Your task to perform on an android device: open app "Truecaller" (install if not already installed) Image 0: 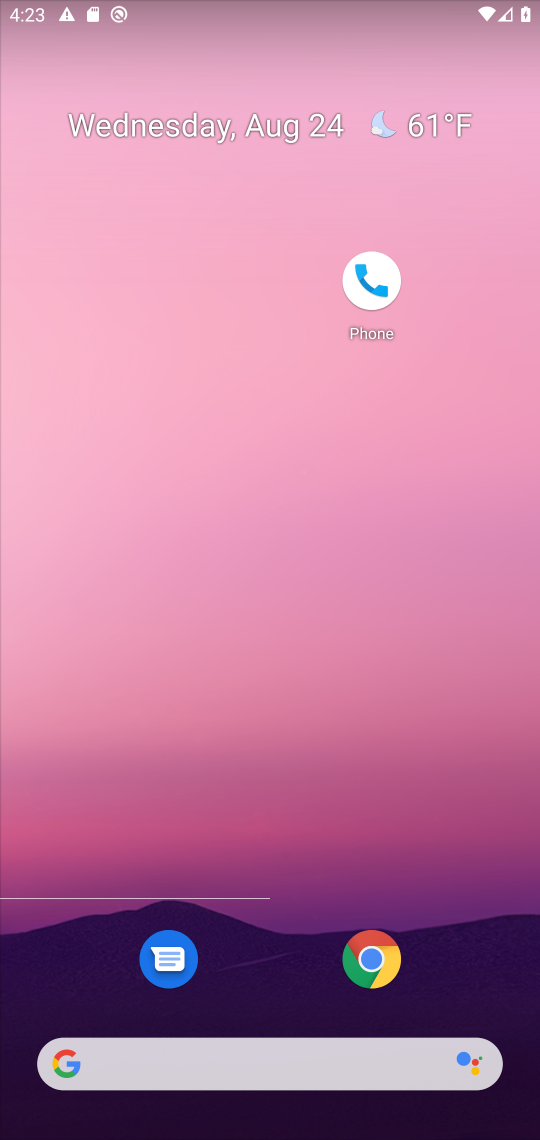
Step 0: drag from (278, 1009) to (311, 5)
Your task to perform on an android device: open app "Truecaller" (install if not already installed) Image 1: 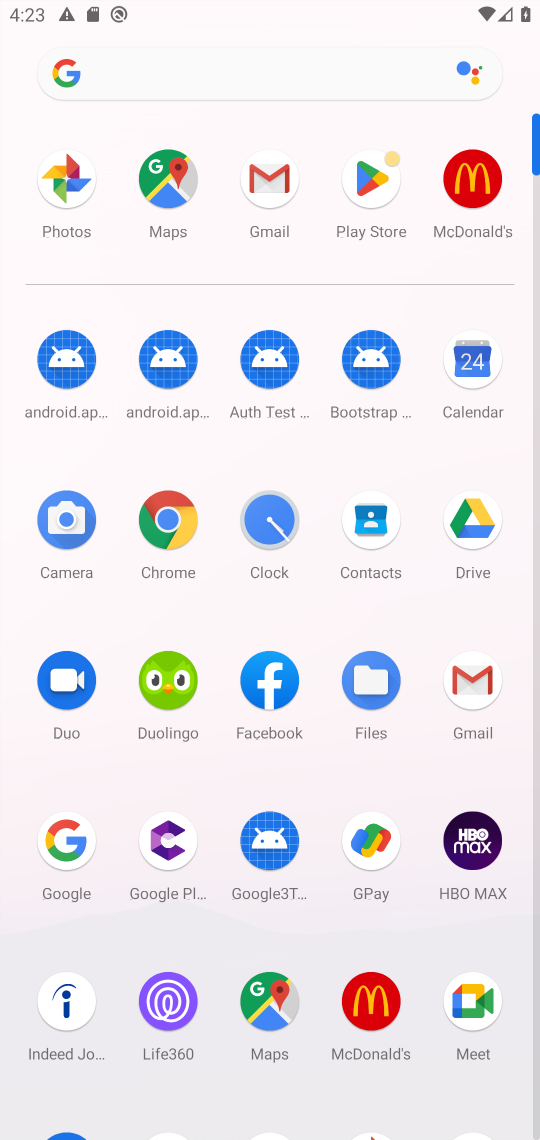
Step 1: click (381, 160)
Your task to perform on an android device: open app "Truecaller" (install if not already installed) Image 2: 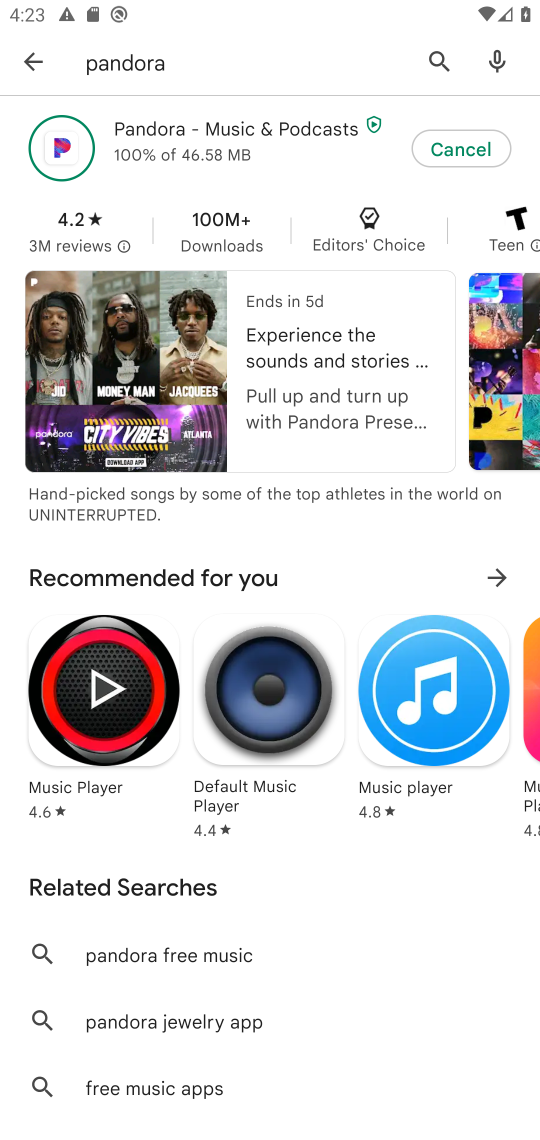
Step 2: click (429, 57)
Your task to perform on an android device: open app "Truecaller" (install if not already installed) Image 3: 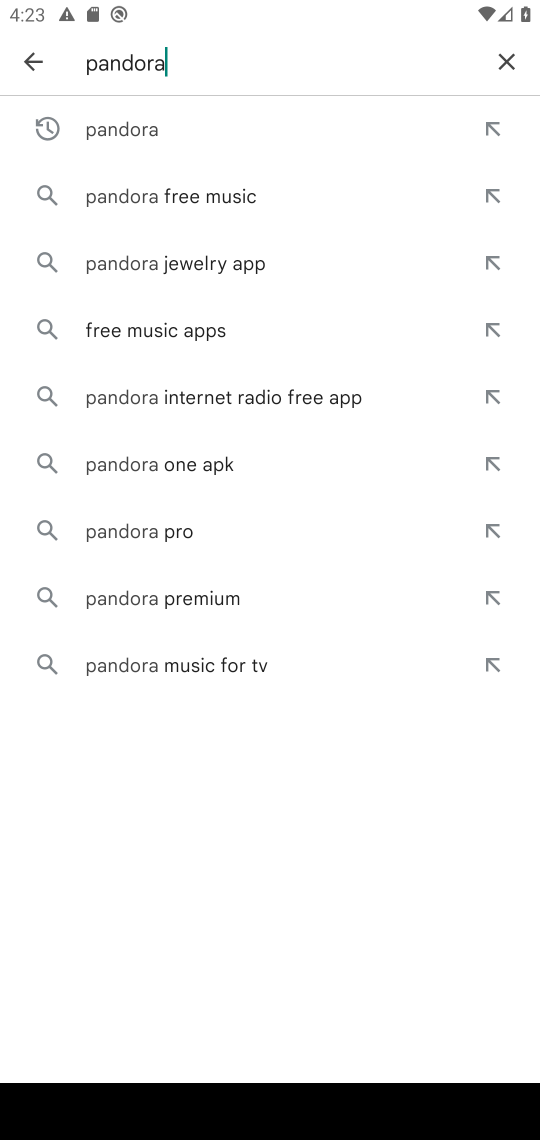
Step 3: click (517, 63)
Your task to perform on an android device: open app "Truecaller" (install if not already installed) Image 4: 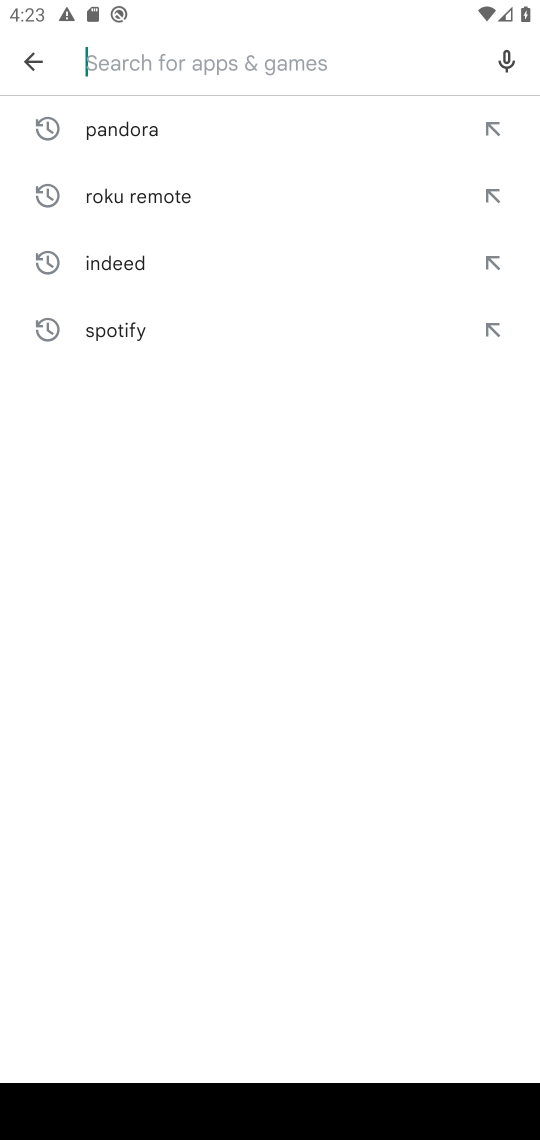
Step 4: type "turecaller"
Your task to perform on an android device: open app "Truecaller" (install if not already installed) Image 5: 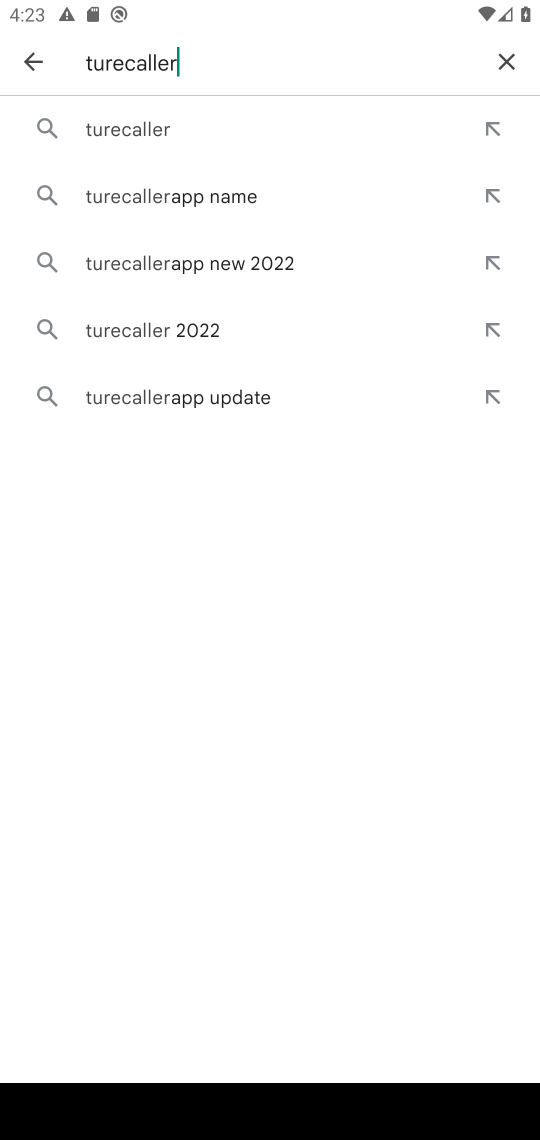
Step 5: click (218, 140)
Your task to perform on an android device: open app "Truecaller" (install if not already installed) Image 6: 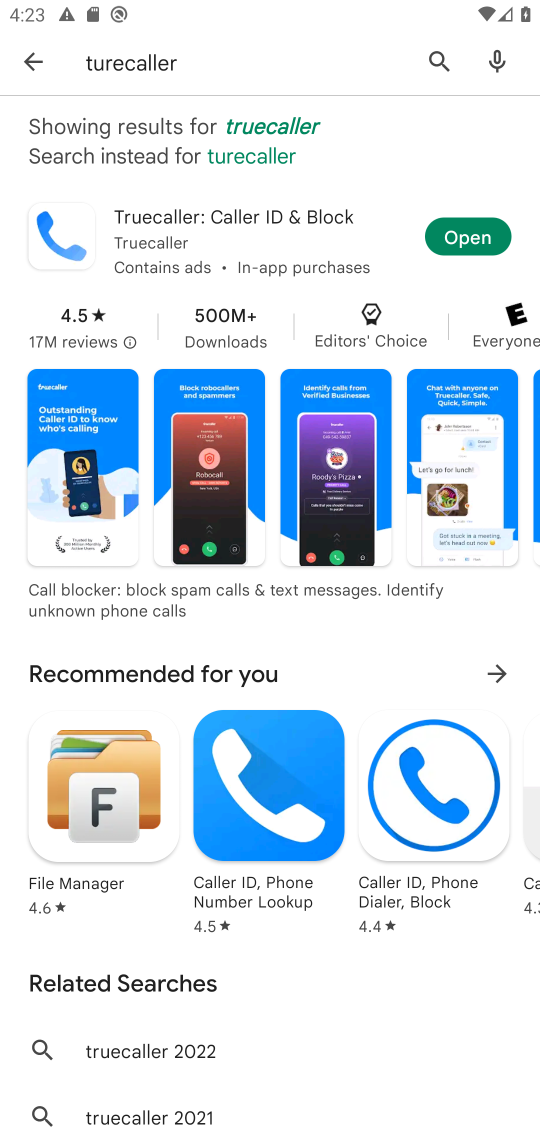
Step 6: click (453, 223)
Your task to perform on an android device: open app "Truecaller" (install if not already installed) Image 7: 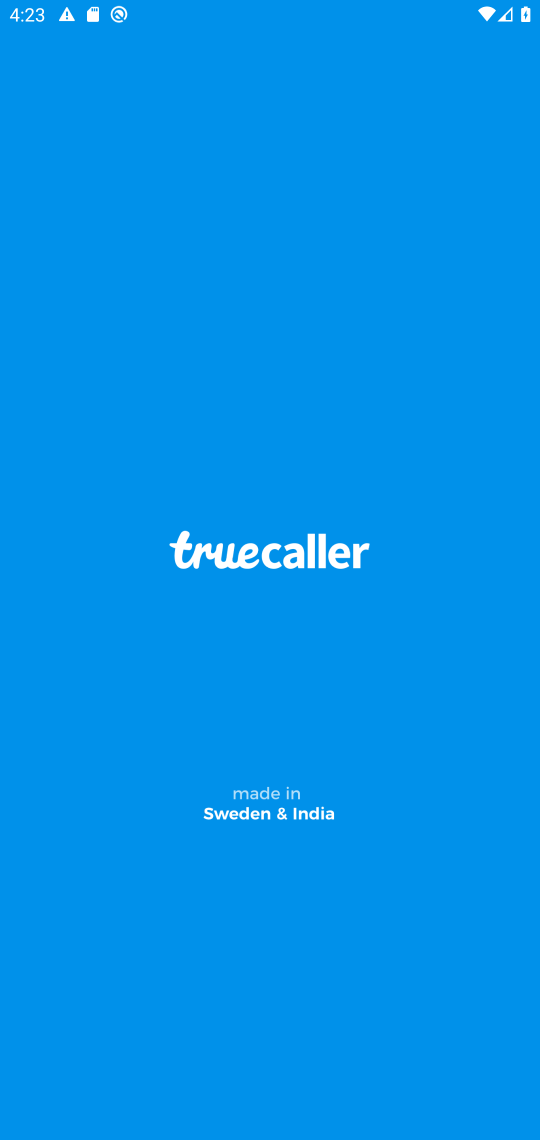
Step 7: task complete